Your task to perform on an android device: turn off notifications in google photos Image 0: 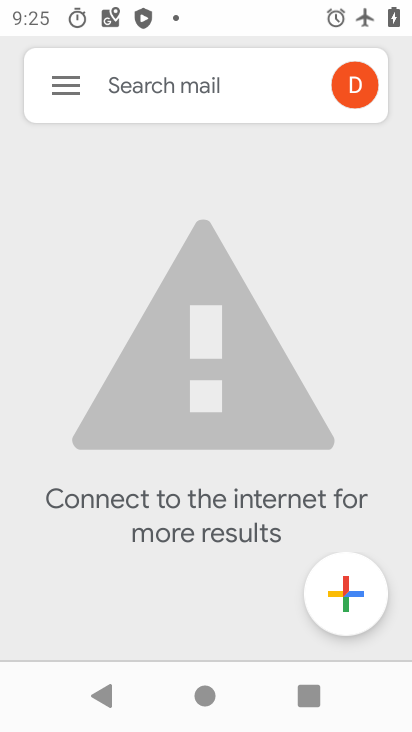
Step 0: press home button
Your task to perform on an android device: turn off notifications in google photos Image 1: 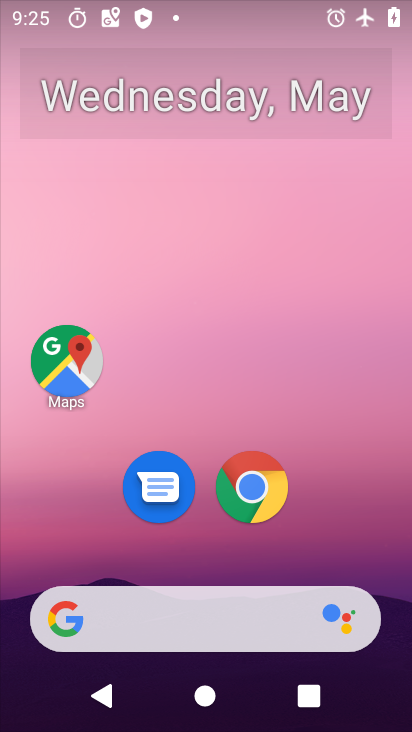
Step 1: drag from (191, 564) to (250, 200)
Your task to perform on an android device: turn off notifications in google photos Image 2: 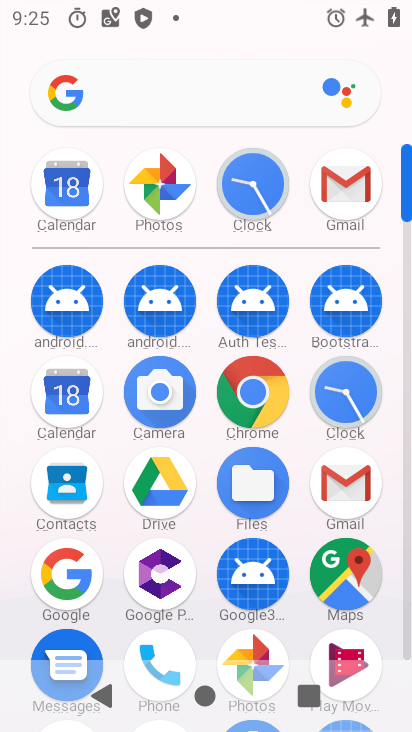
Step 2: click (139, 189)
Your task to perform on an android device: turn off notifications in google photos Image 3: 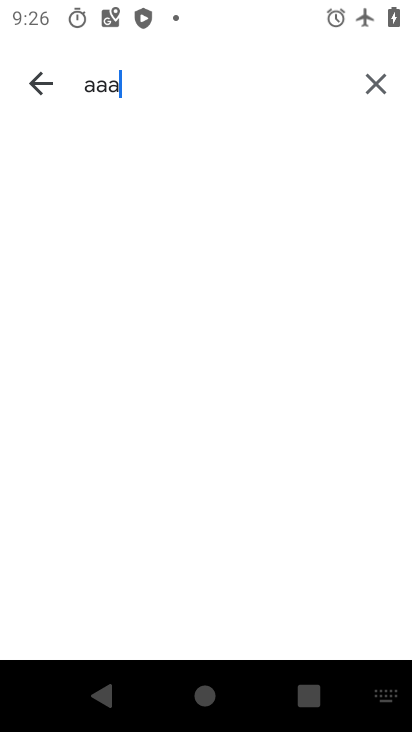
Step 3: click (45, 75)
Your task to perform on an android device: turn off notifications in google photos Image 4: 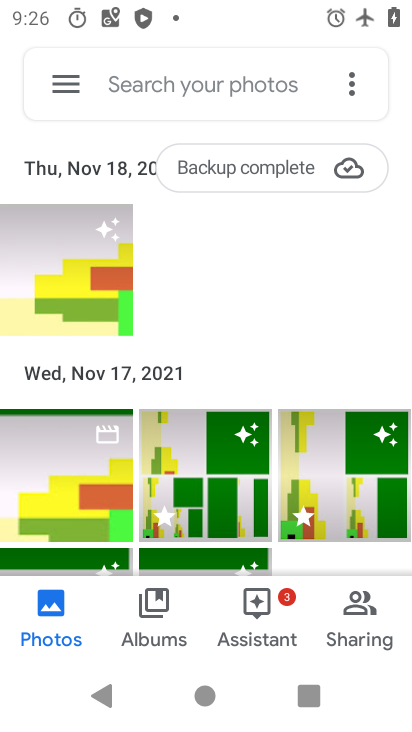
Step 4: click (45, 75)
Your task to perform on an android device: turn off notifications in google photos Image 5: 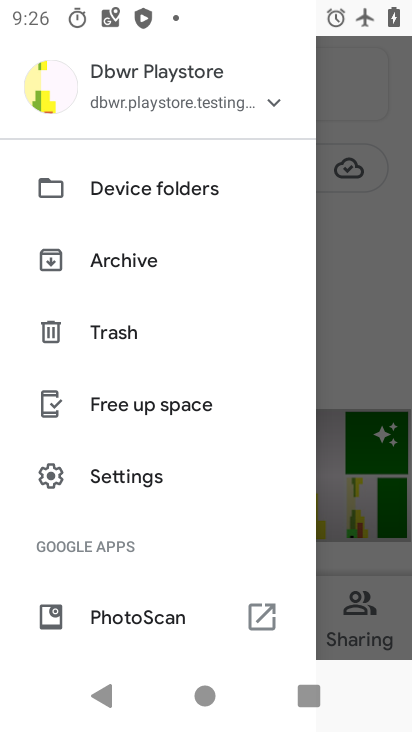
Step 5: click (139, 486)
Your task to perform on an android device: turn off notifications in google photos Image 6: 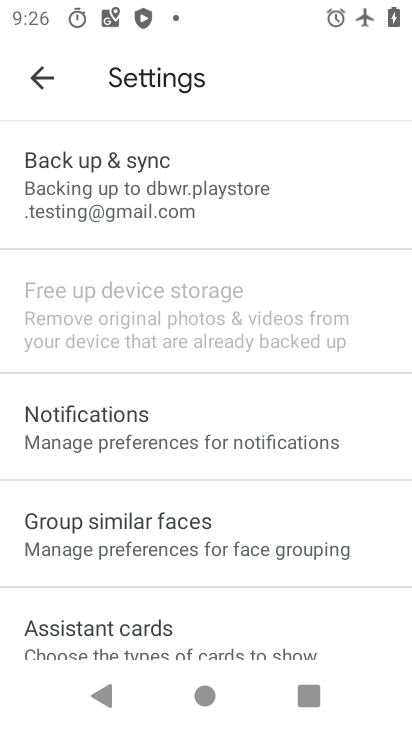
Step 6: click (149, 433)
Your task to perform on an android device: turn off notifications in google photos Image 7: 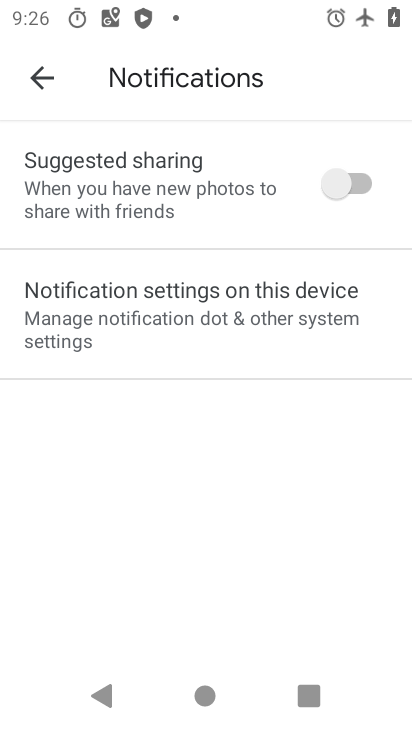
Step 7: click (149, 341)
Your task to perform on an android device: turn off notifications in google photos Image 8: 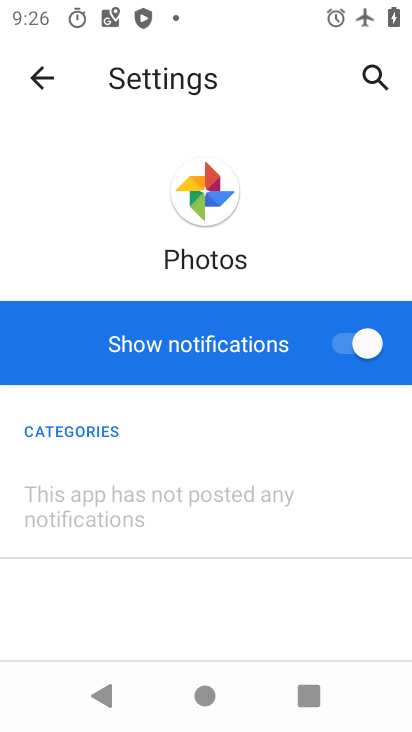
Step 8: click (336, 347)
Your task to perform on an android device: turn off notifications in google photos Image 9: 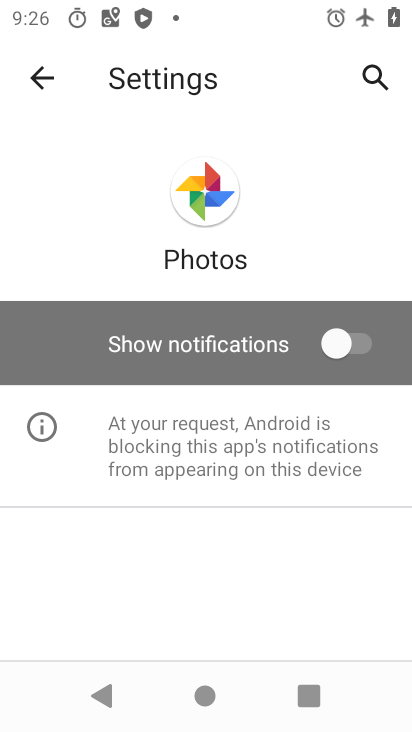
Step 9: task complete